Your task to perform on an android device: turn off sleep mode Image 0: 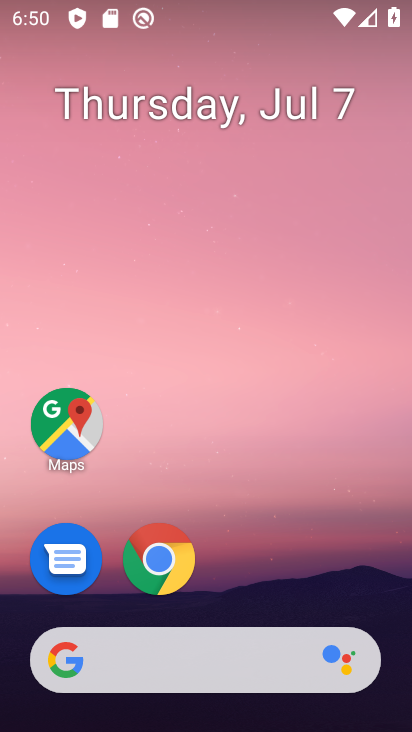
Step 0: drag from (227, 282) to (249, 50)
Your task to perform on an android device: turn off sleep mode Image 1: 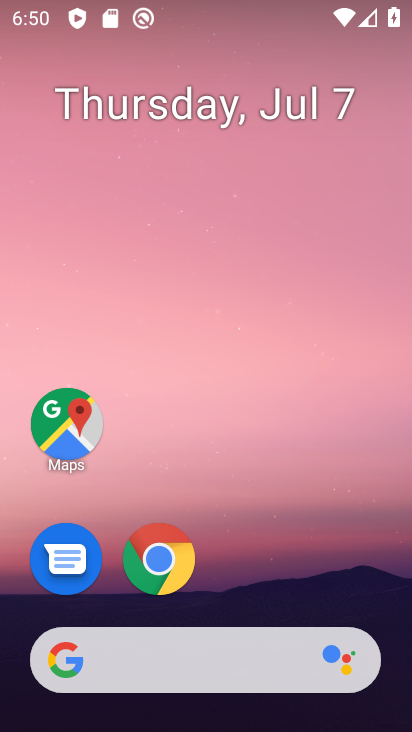
Step 1: drag from (270, 533) to (243, 156)
Your task to perform on an android device: turn off sleep mode Image 2: 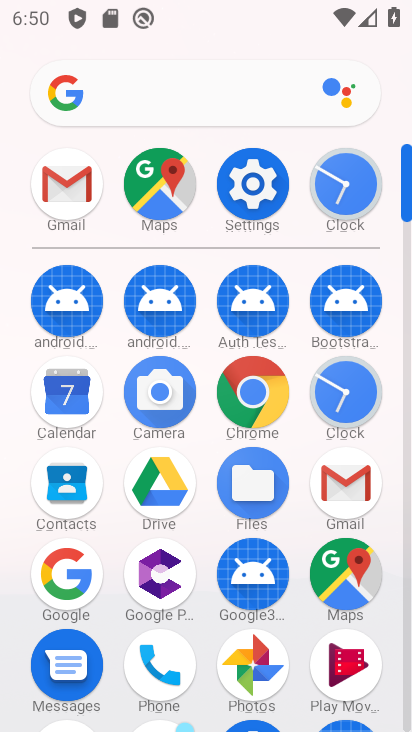
Step 2: click (244, 202)
Your task to perform on an android device: turn off sleep mode Image 3: 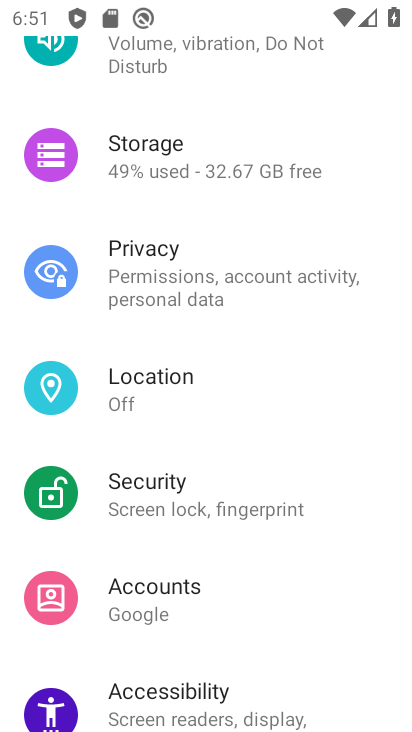
Step 3: drag from (184, 245) to (197, 596)
Your task to perform on an android device: turn off sleep mode Image 4: 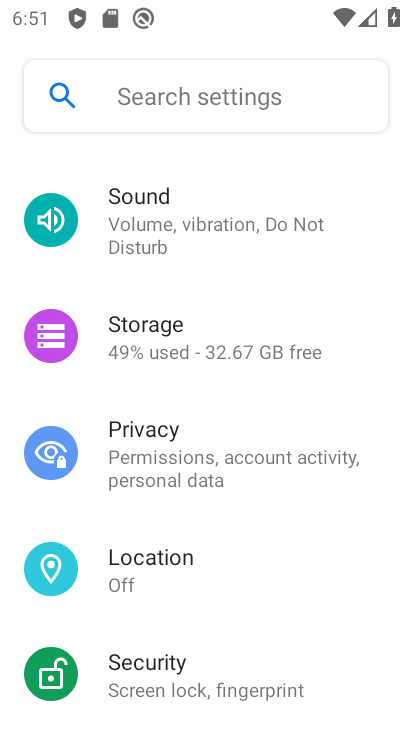
Step 4: drag from (193, 269) to (153, 648)
Your task to perform on an android device: turn off sleep mode Image 5: 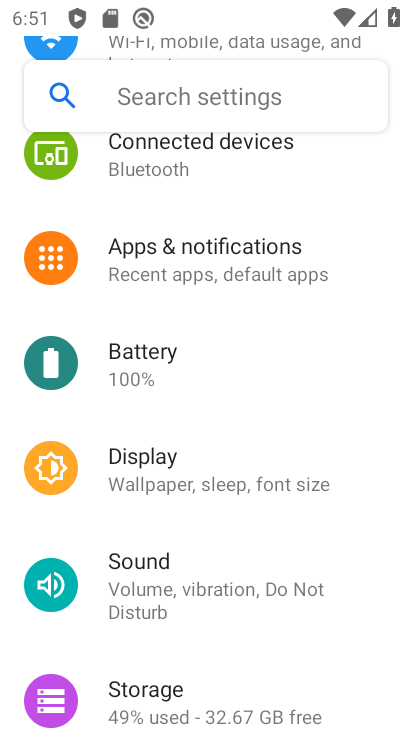
Step 5: click (153, 496)
Your task to perform on an android device: turn off sleep mode Image 6: 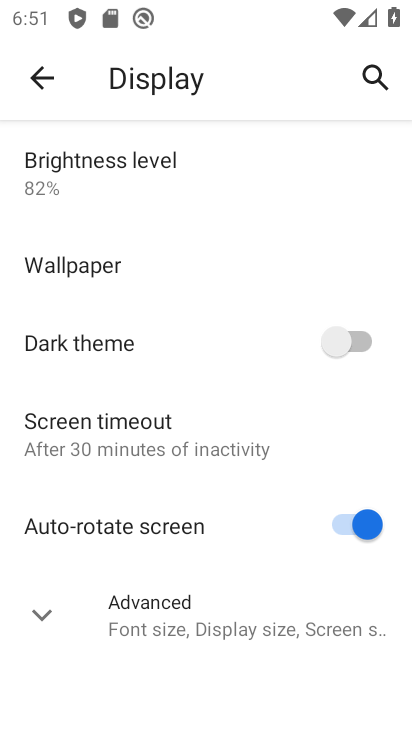
Step 6: click (251, 633)
Your task to perform on an android device: turn off sleep mode Image 7: 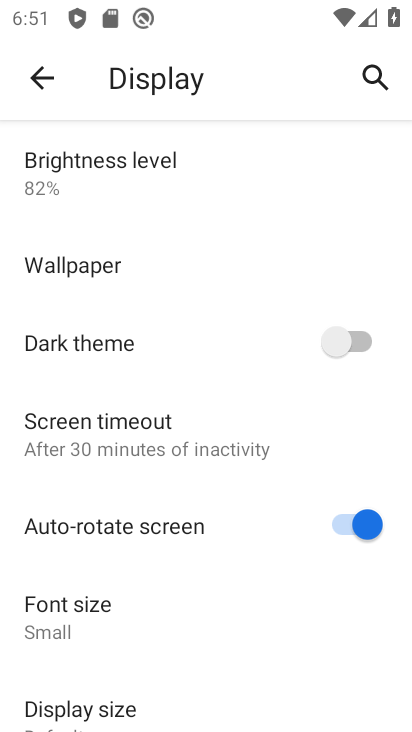
Step 7: task complete